Your task to perform on an android device: install app "Upside-Cash back on gas & food" Image 0: 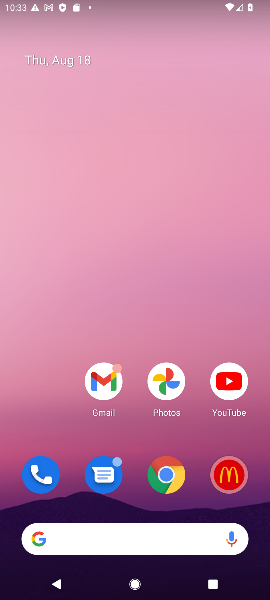
Step 0: drag from (140, 512) to (92, 18)
Your task to perform on an android device: install app "Upside-Cash back on gas & food" Image 1: 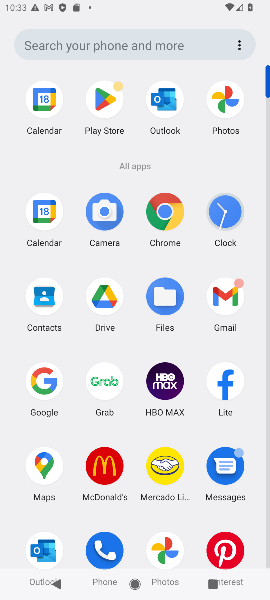
Step 1: click (97, 117)
Your task to perform on an android device: install app "Upside-Cash back on gas & food" Image 2: 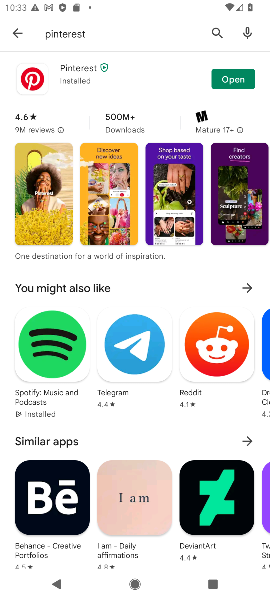
Step 2: click (14, 26)
Your task to perform on an android device: install app "Upside-Cash back on gas & food" Image 3: 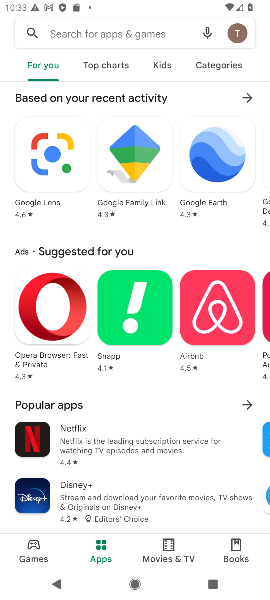
Step 3: click (118, 39)
Your task to perform on an android device: install app "Upside-Cash back on gas & food" Image 4: 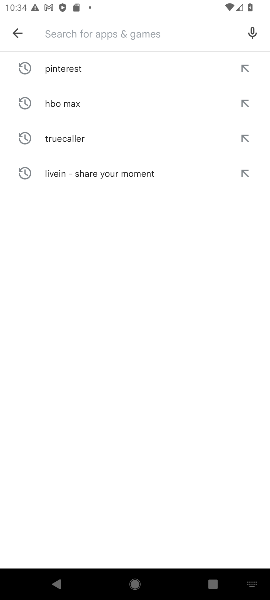
Step 4: type "Upside"
Your task to perform on an android device: install app "Upside-Cash back on gas & food" Image 5: 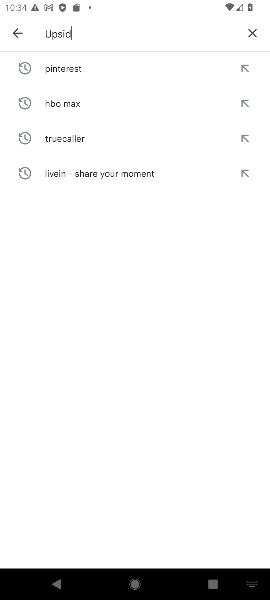
Step 5: type ""
Your task to perform on an android device: install app "Upside-Cash back on gas & food" Image 6: 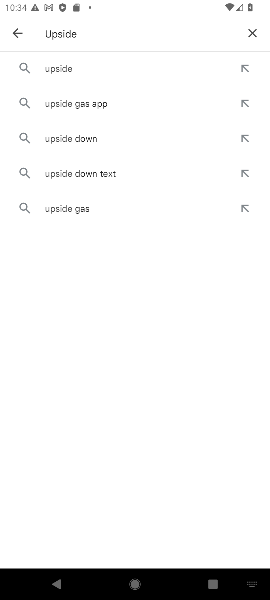
Step 6: click (49, 69)
Your task to perform on an android device: install app "Upside-Cash back on gas & food" Image 7: 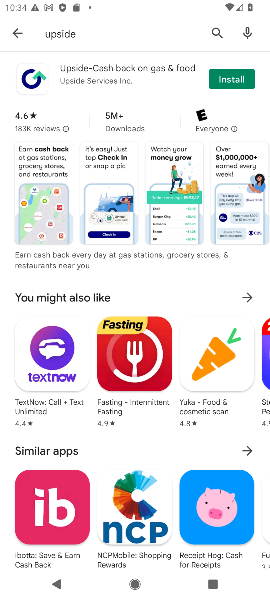
Step 7: click (209, 86)
Your task to perform on an android device: install app "Upside-Cash back on gas & food" Image 8: 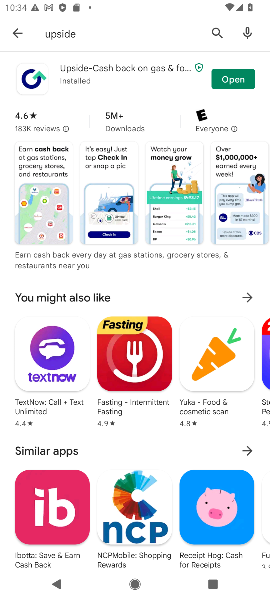
Step 8: click (223, 78)
Your task to perform on an android device: install app "Upside-Cash back on gas & food" Image 9: 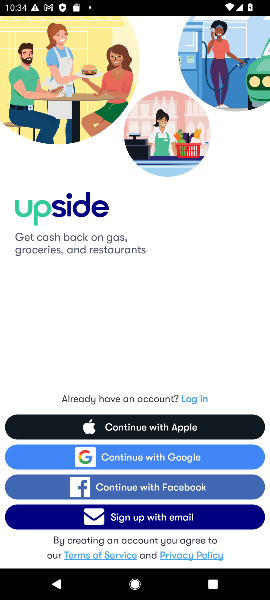
Step 9: task complete